Your task to perform on an android device: uninstall "Instagram" Image 0: 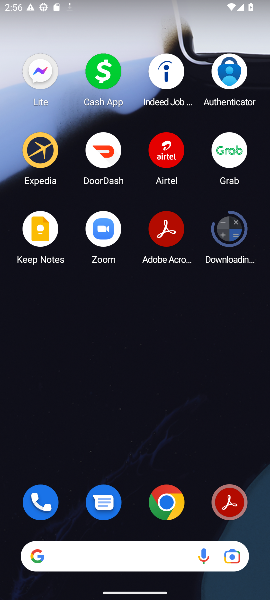
Step 0: drag from (128, 526) to (117, 90)
Your task to perform on an android device: uninstall "Instagram" Image 1: 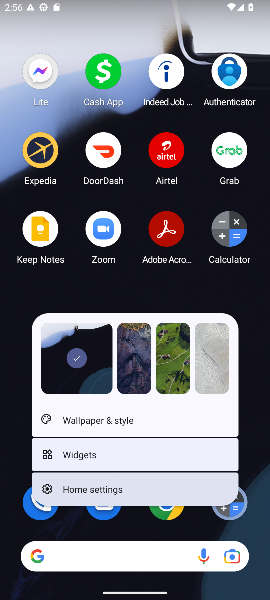
Step 1: click (151, 293)
Your task to perform on an android device: uninstall "Instagram" Image 2: 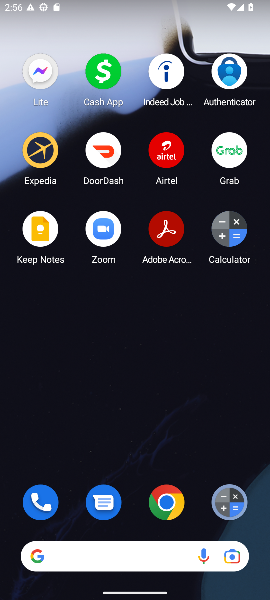
Step 2: drag from (144, 530) to (135, 8)
Your task to perform on an android device: uninstall "Instagram" Image 3: 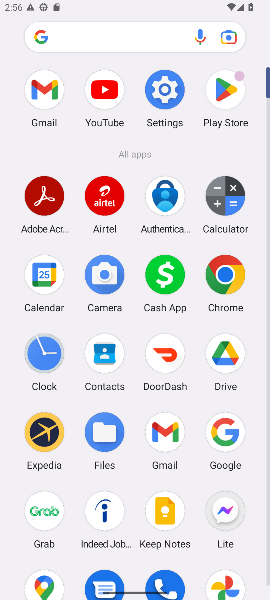
Step 3: click (235, 84)
Your task to perform on an android device: uninstall "Instagram" Image 4: 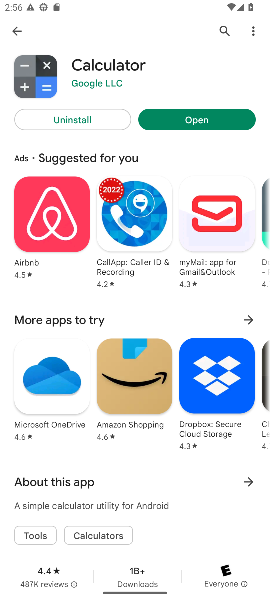
Step 4: click (230, 40)
Your task to perform on an android device: uninstall "Instagram" Image 5: 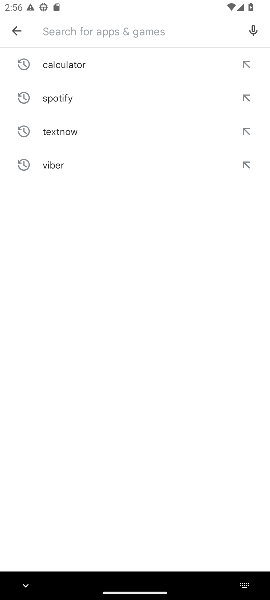
Step 5: type "instagram"
Your task to perform on an android device: uninstall "Instagram" Image 6: 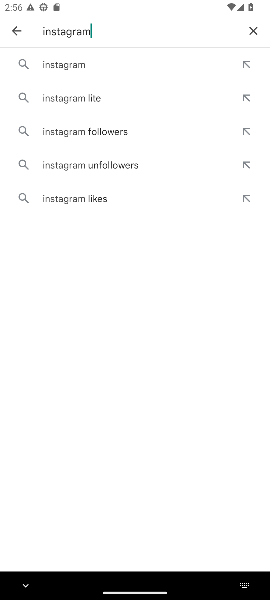
Step 6: click (145, 66)
Your task to perform on an android device: uninstall "Instagram" Image 7: 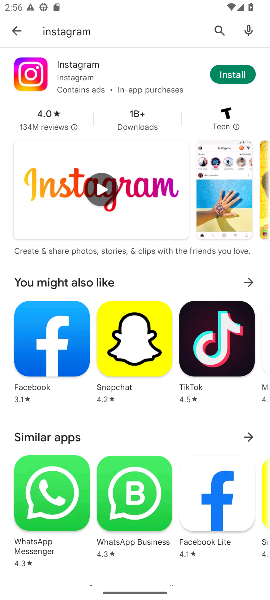
Step 7: click (226, 66)
Your task to perform on an android device: uninstall "Instagram" Image 8: 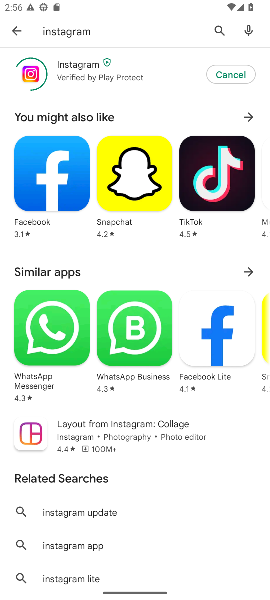
Step 8: task complete